Your task to perform on an android device: Open accessibility settings Image 0: 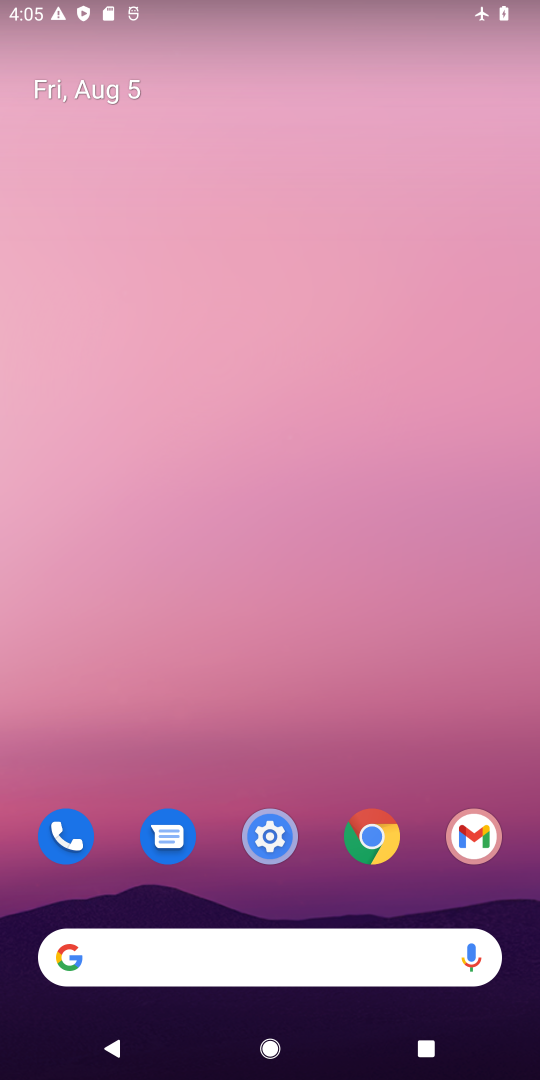
Step 0: drag from (352, 793) to (480, 41)
Your task to perform on an android device: Open accessibility settings Image 1: 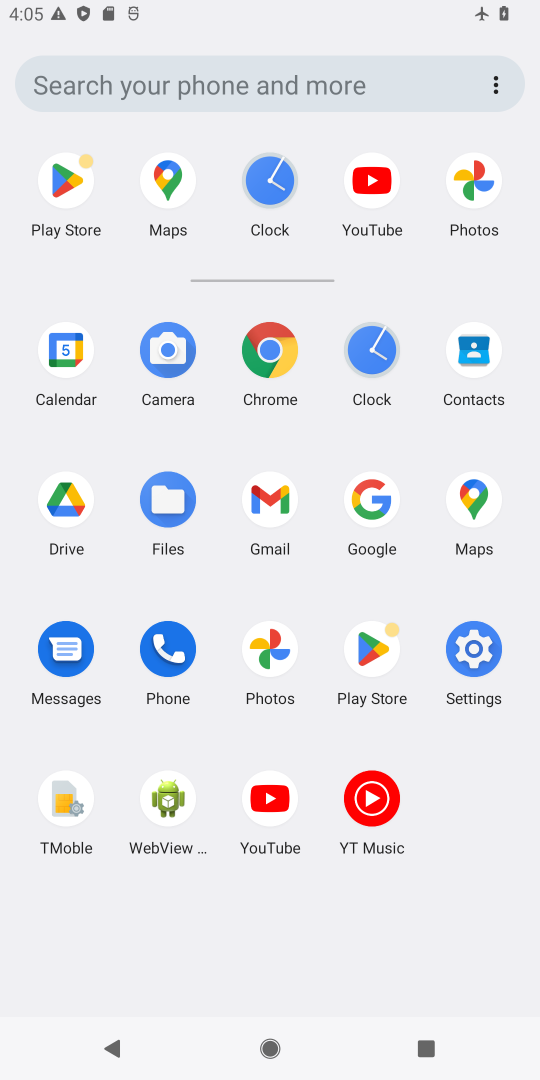
Step 1: click (483, 668)
Your task to perform on an android device: Open accessibility settings Image 2: 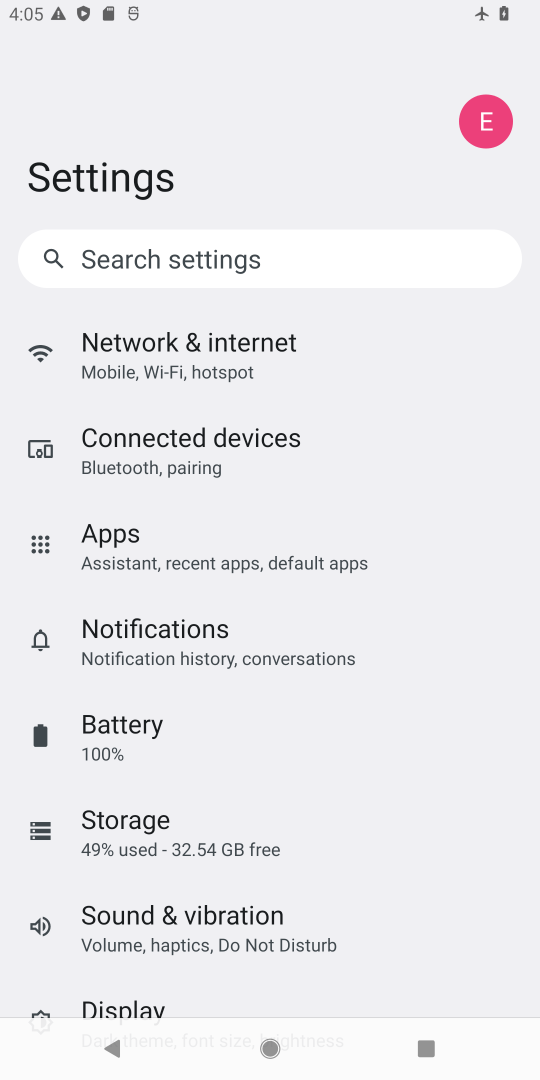
Step 2: drag from (186, 818) to (200, 292)
Your task to perform on an android device: Open accessibility settings Image 3: 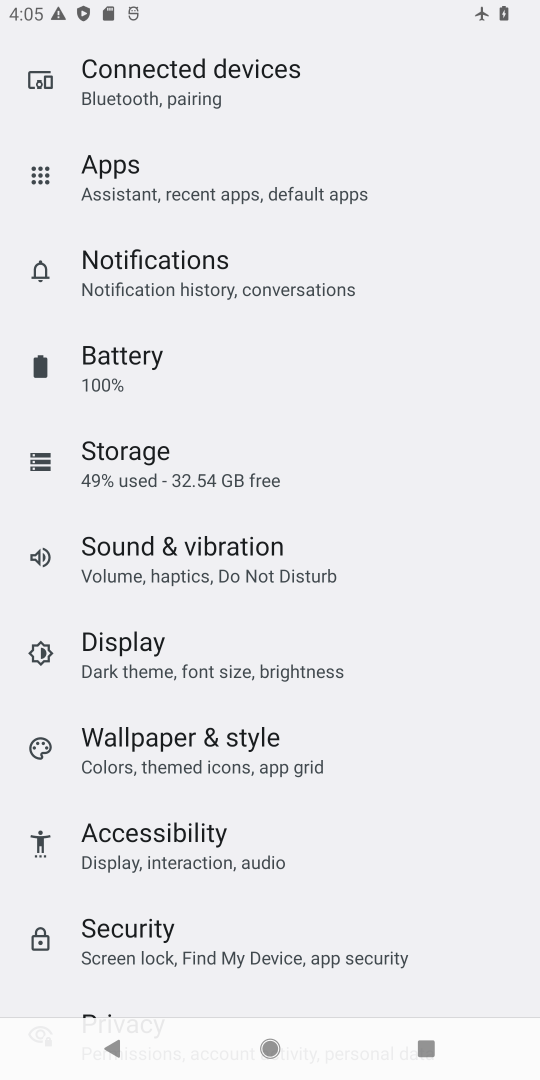
Step 3: click (176, 854)
Your task to perform on an android device: Open accessibility settings Image 4: 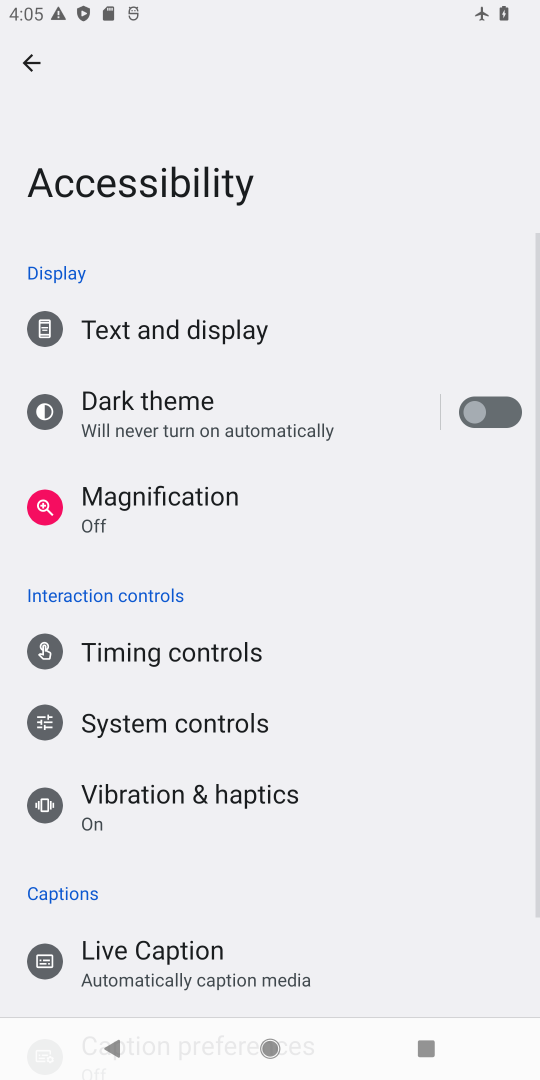
Step 4: task complete